Your task to perform on an android device: turn on data saver in the chrome app Image 0: 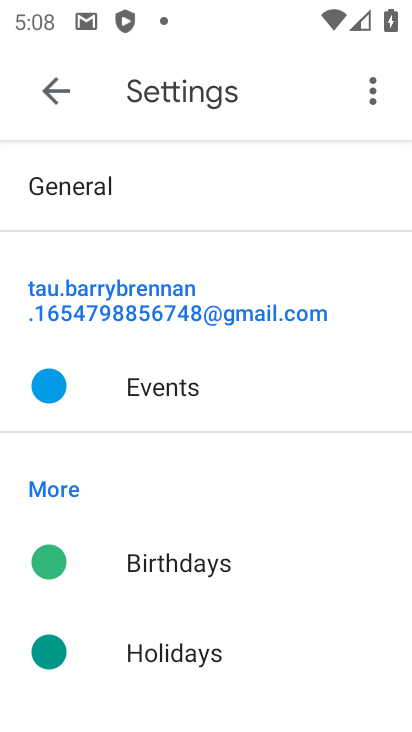
Step 0: press home button
Your task to perform on an android device: turn on data saver in the chrome app Image 1: 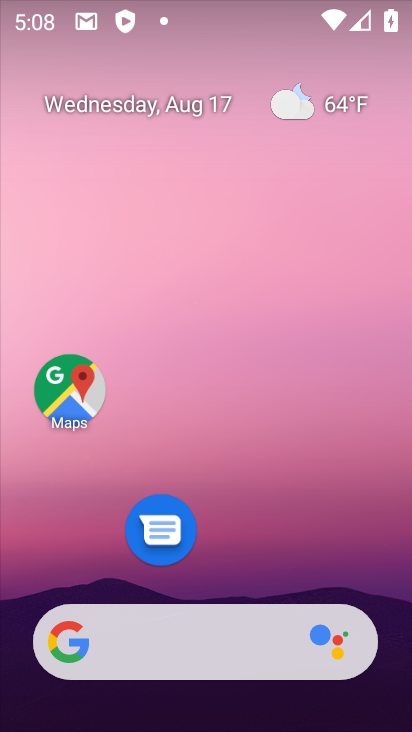
Step 1: drag from (221, 570) to (242, 12)
Your task to perform on an android device: turn on data saver in the chrome app Image 2: 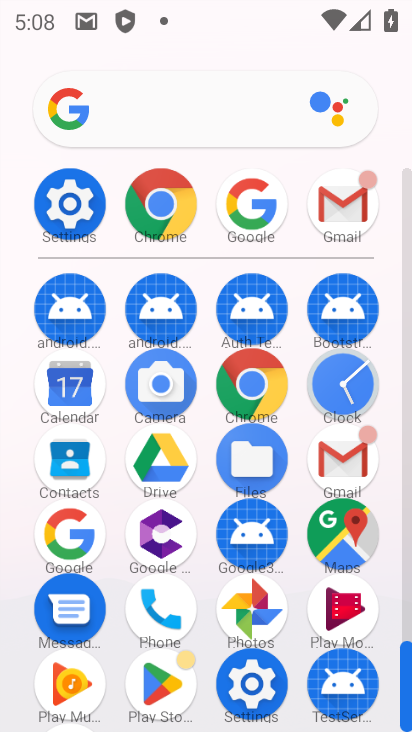
Step 2: click (166, 206)
Your task to perform on an android device: turn on data saver in the chrome app Image 3: 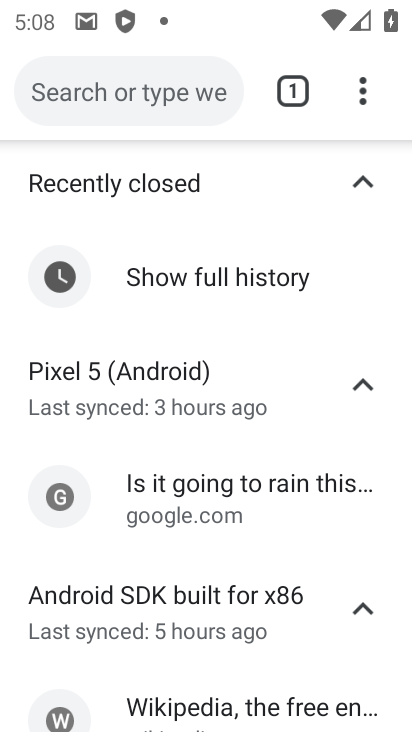
Step 3: click (363, 91)
Your task to perform on an android device: turn on data saver in the chrome app Image 4: 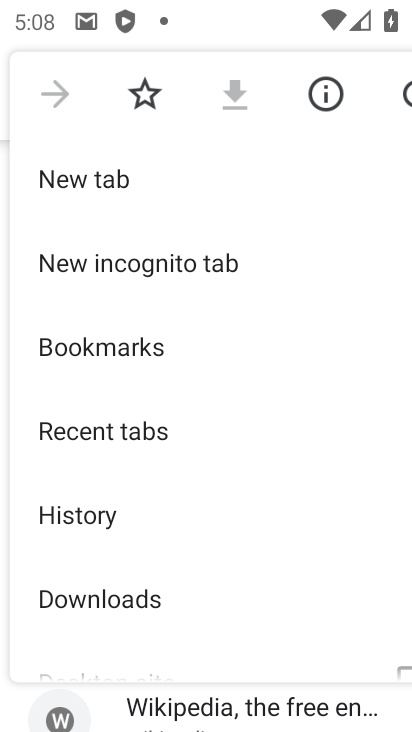
Step 4: drag from (165, 624) to (164, 361)
Your task to perform on an android device: turn on data saver in the chrome app Image 5: 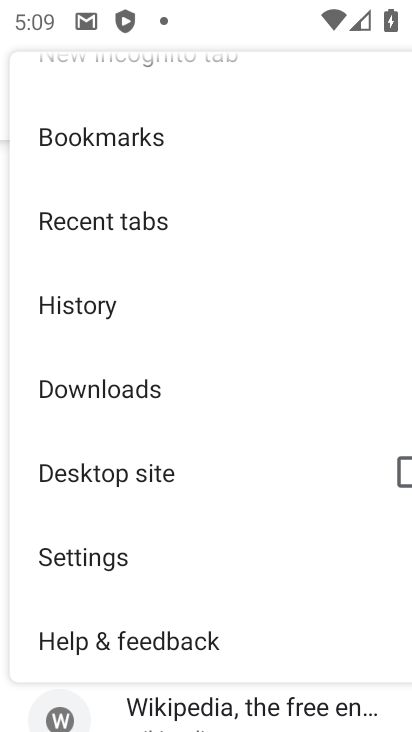
Step 5: click (113, 562)
Your task to perform on an android device: turn on data saver in the chrome app Image 6: 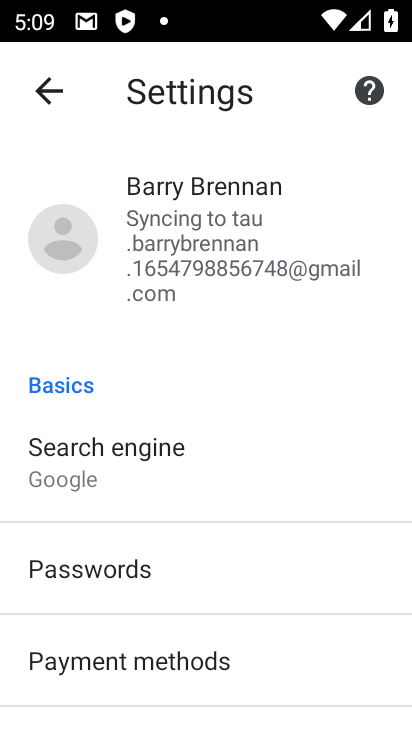
Step 6: drag from (230, 557) to (254, 130)
Your task to perform on an android device: turn on data saver in the chrome app Image 7: 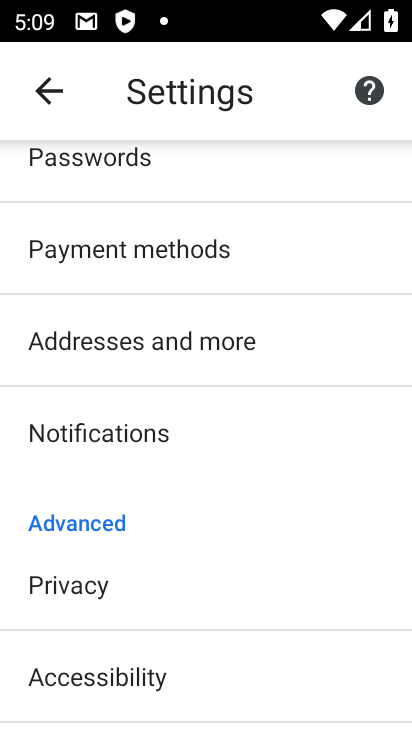
Step 7: drag from (157, 619) to (274, 58)
Your task to perform on an android device: turn on data saver in the chrome app Image 8: 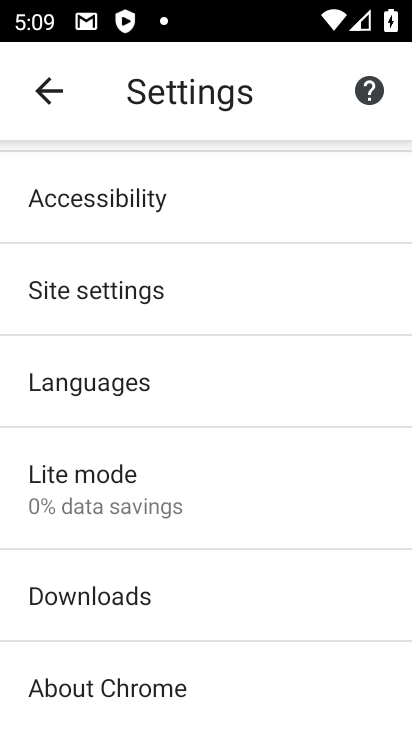
Step 8: click (129, 294)
Your task to perform on an android device: turn on data saver in the chrome app Image 9: 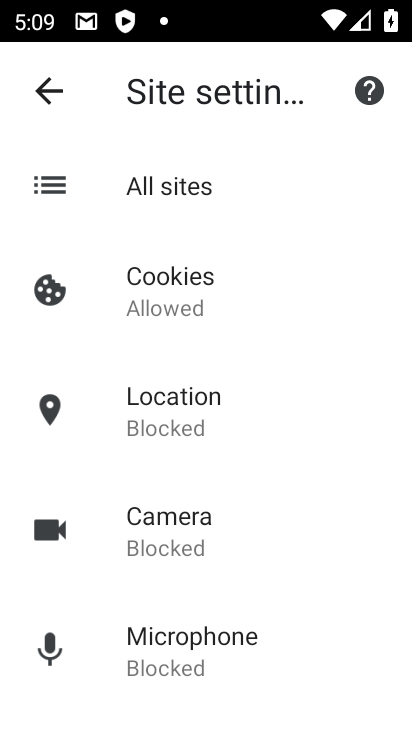
Step 9: drag from (243, 585) to (303, 184)
Your task to perform on an android device: turn on data saver in the chrome app Image 10: 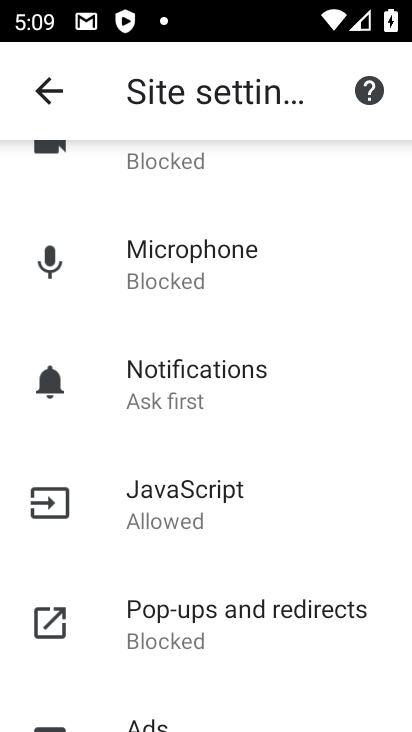
Step 10: click (43, 97)
Your task to perform on an android device: turn on data saver in the chrome app Image 11: 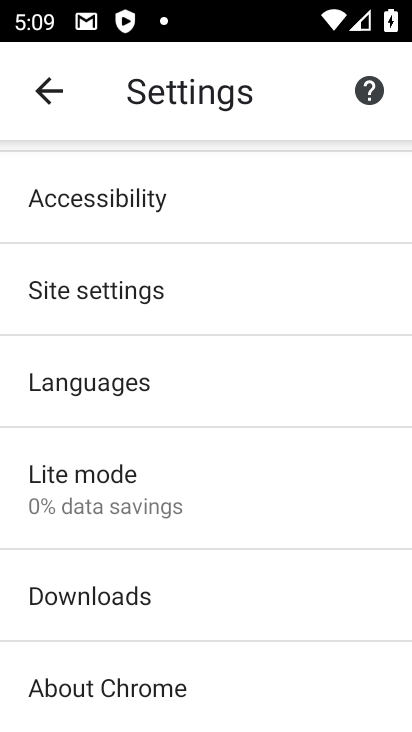
Step 11: click (106, 471)
Your task to perform on an android device: turn on data saver in the chrome app Image 12: 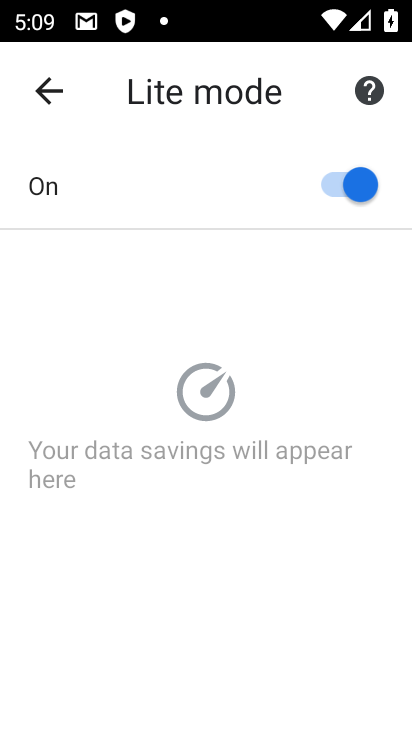
Step 12: task complete